Your task to perform on an android device: Open the calendar and show me this week's events? Image 0: 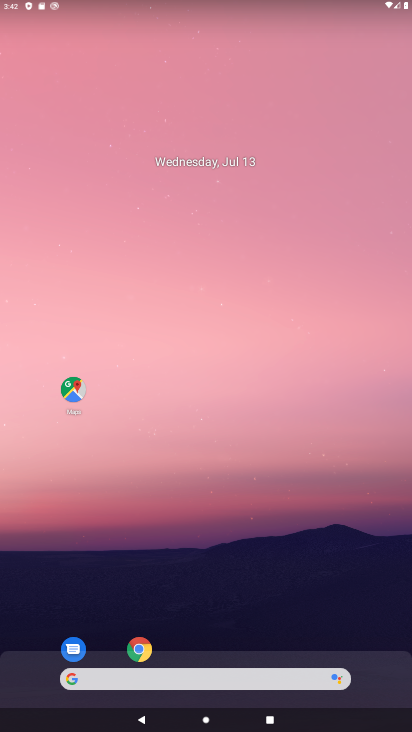
Step 0: drag from (220, 705) to (231, 79)
Your task to perform on an android device: Open the calendar and show me this week's events? Image 1: 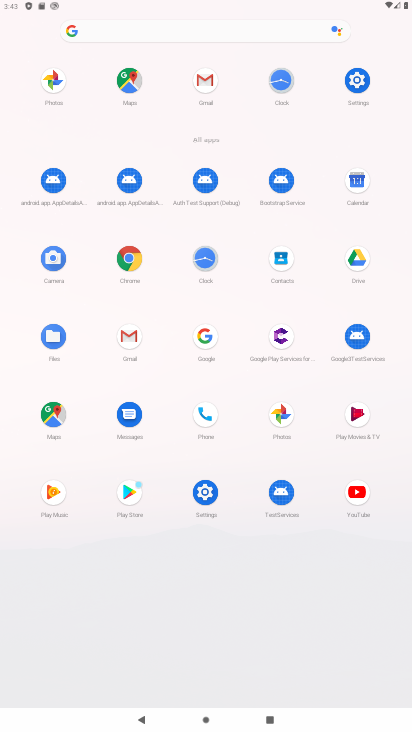
Step 1: click (361, 188)
Your task to perform on an android device: Open the calendar and show me this week's events? Image 2: 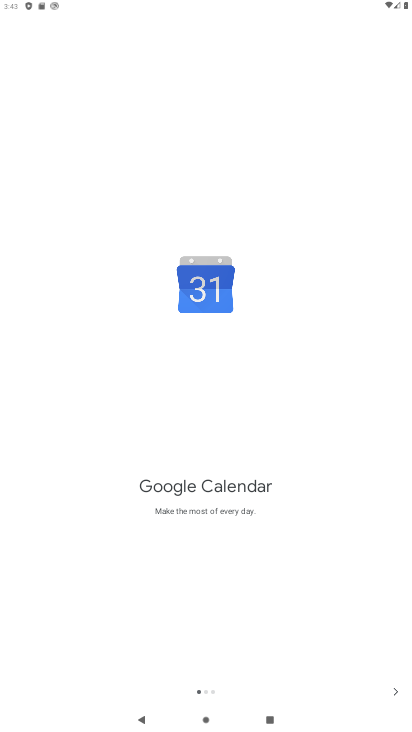
Step 2: click (397, 685)
Your task to perform on an android device: Open the calendar and show me this week's events? Image 3: 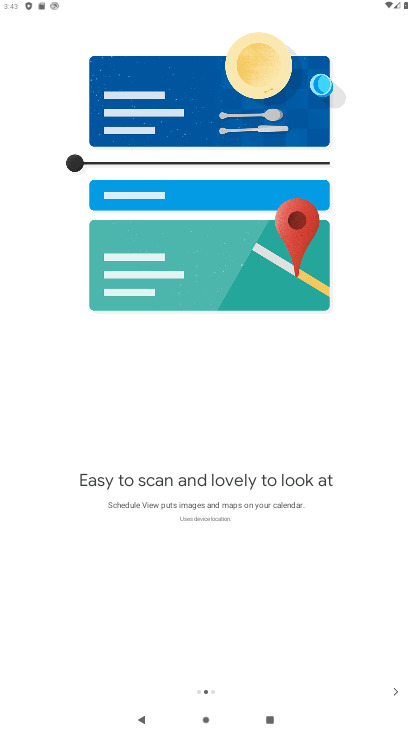
Step 3: click (398, 690)
Your task to perform on an android device: Open the calendar and show me this week's events? Image 4: 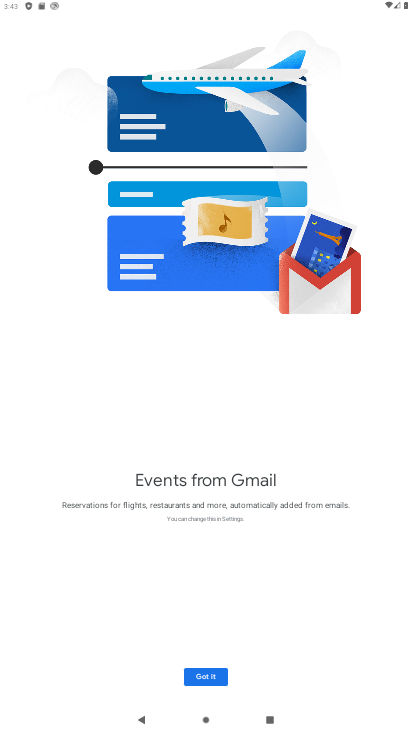
Step 4: click (394, 693)
Your task to perform on an android device: Open the calendar and show me this week's events? Image 5: 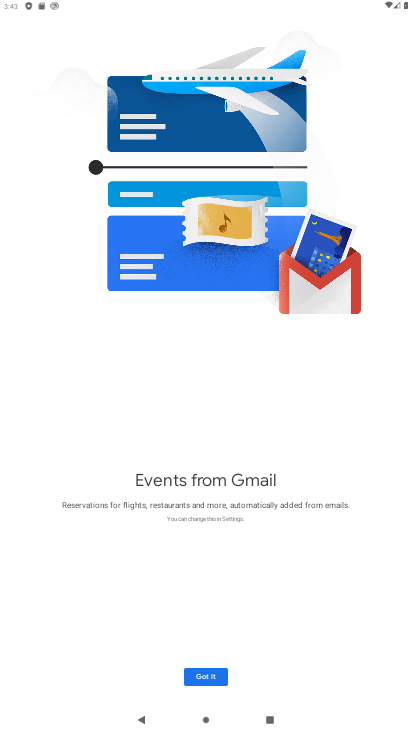
Step 5: click (211, 673)
Your task to perform on an android device: Open the calendar and show me this week's events? Image 6: 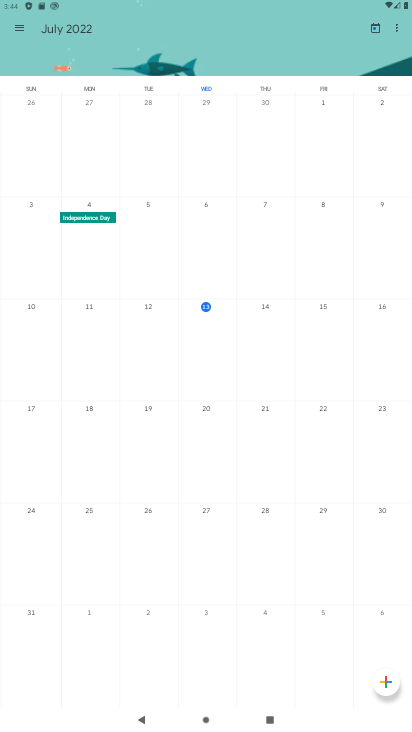
Step 6: click (17, 30)
Your task to perform on an android device: Open the calendar and show me this week's events? Image 7: 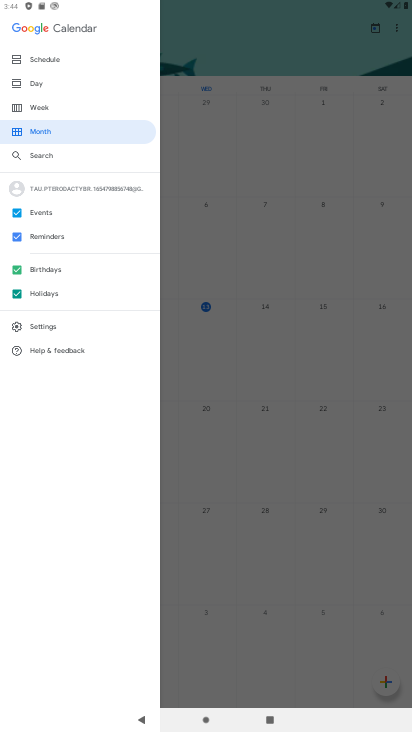
Step 7: click (18, 293)
Your task to perform on an android device: Open the calendar and show me this week's events? Image 8: 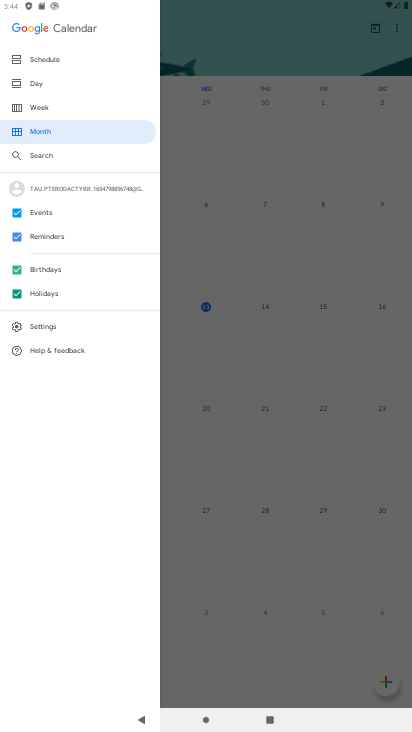
Step 8: click (15, 267)
Your task to perform on an android device: Open the calendar and show me this week's events? Image 9: 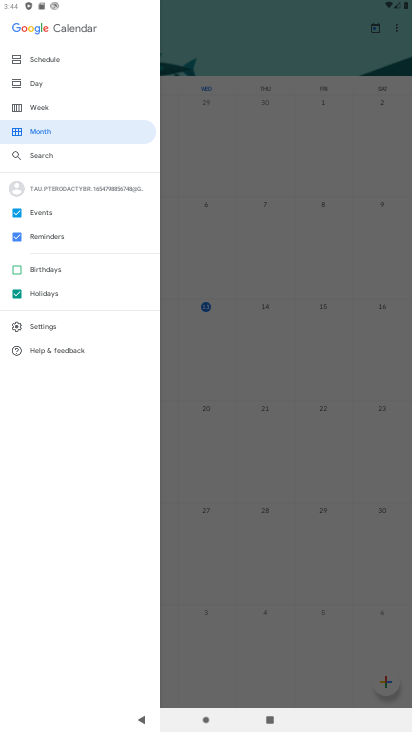
Step 9: click (15, 293)
Your task to perform on an android device: Open the calendar and show me this week's events? Image 10: 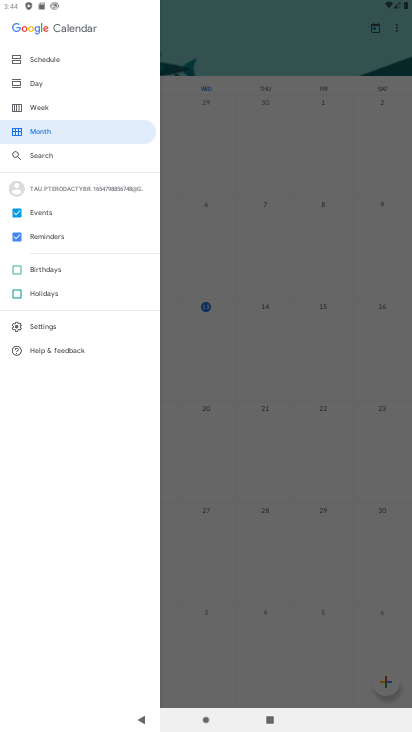
Step 10: click (19, 234)
Your task to perform on an android device: Open the calendar and show me this week's events? Image 11: 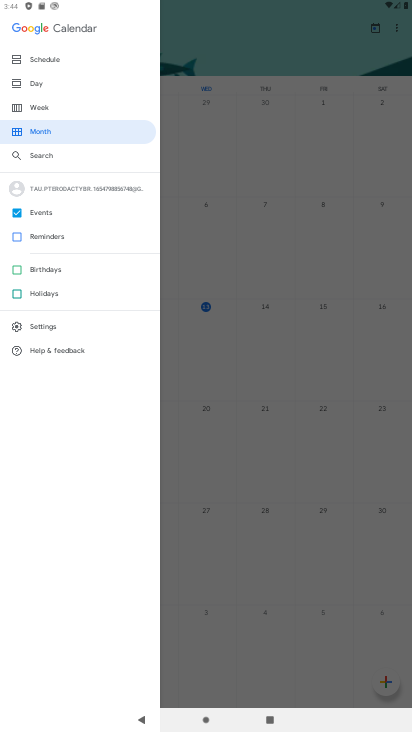
Step 11: click (37, 106)
Your task to perform on an android device: Open the calendar and show me this week's events? Image 12: 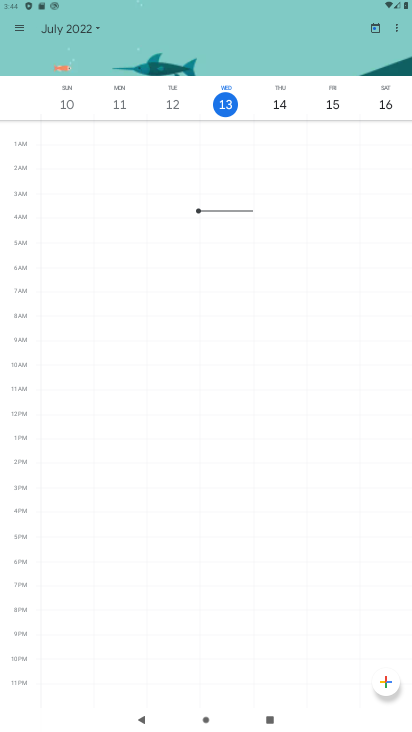
Step 12: task complete